Your task to perform on an android device: see sites visited before in the chrome app Image 0: 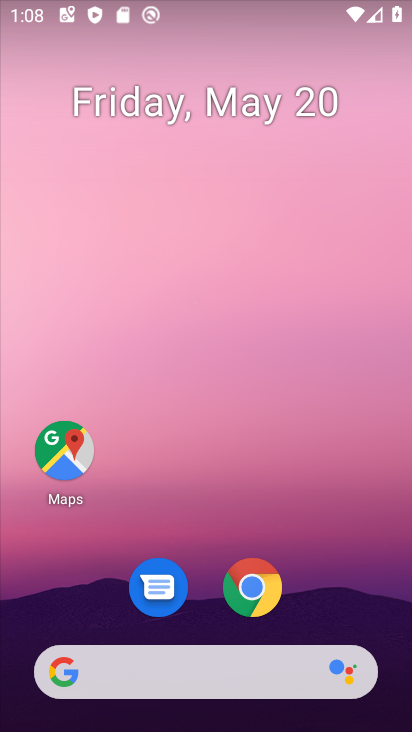
Step 0: click (253, 578)
Your task to perform on an android device: see sites visited before in the chrome app Image 1: 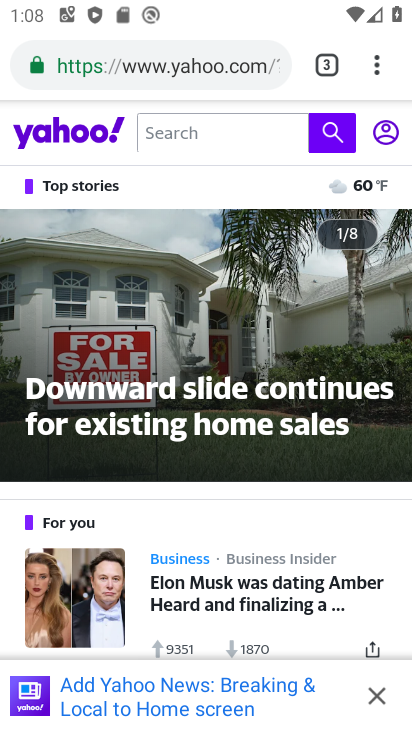
Step 1: click (380, 56)
Your task to perform on an android device: see sites visited before in the chrome app Image 2: 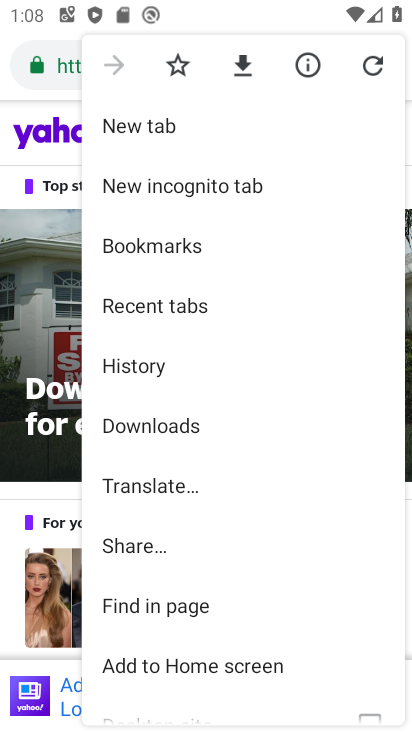
Step 2: click (166, 303)
Your task to perform on an android device: see sites visited before in the chrome app Image 3: 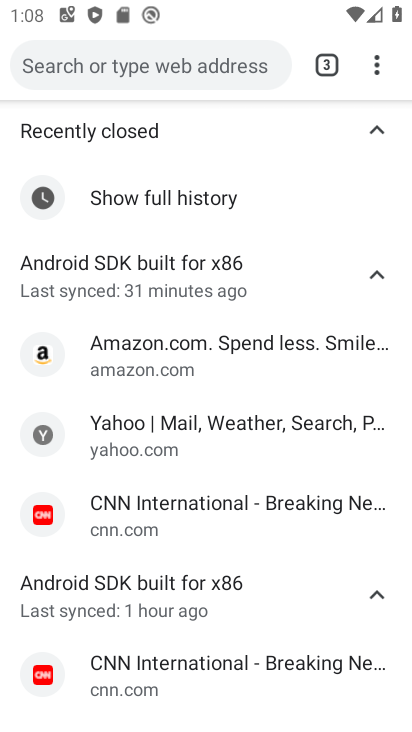
Step 3: task complete